Your task to perform on an android device: delete browsing data in the chrome app Image 0: 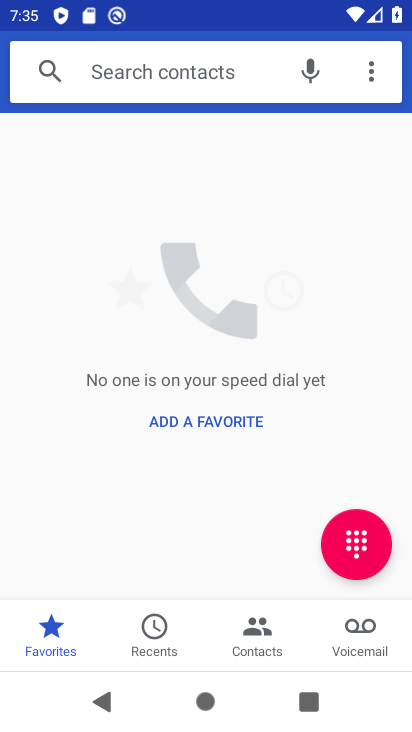
Step 0: press home button
Your task to perform on an android device: delete browsing data in the chrome app Image 1: 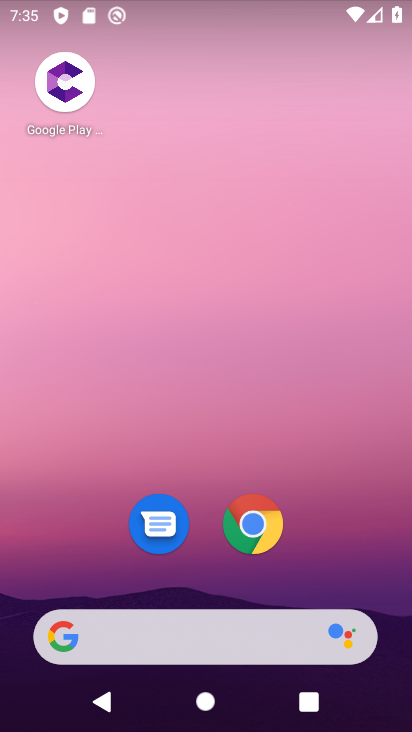
Step 1: click (251, 529)
Your task to perform on an android device: delete browsing data in the chrome app Image 2: 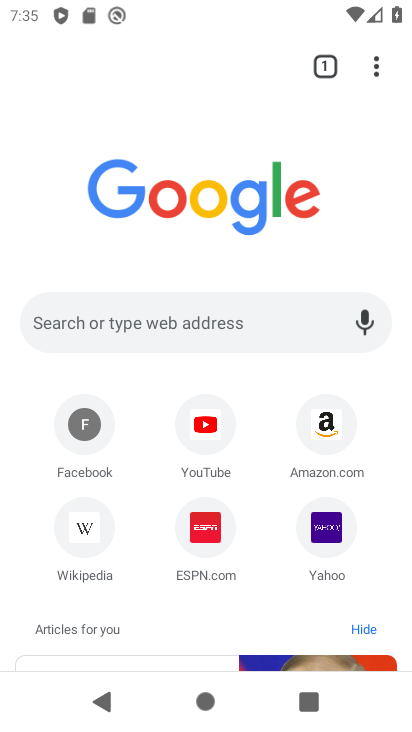
Step 2: click (376, 72)
Your task to perform on an android device: delete browsing data in the chrome app Image 3: 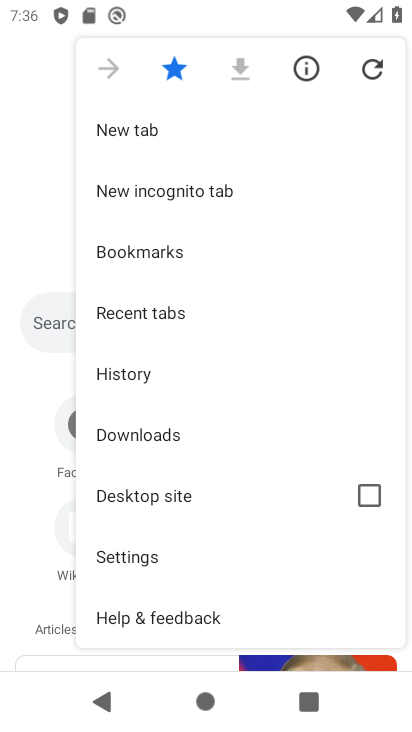
Step 3: click (125, 366)
Your task to perform on an android device: delete browsing data in the chrome app Image 4: 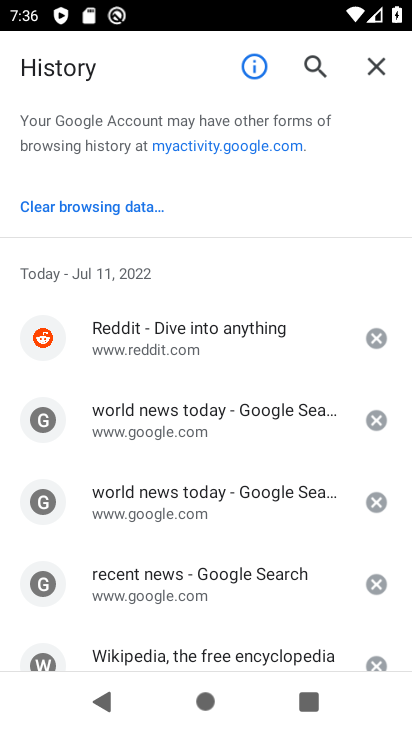
Step 4: click (111, 203)
Your task to perform on an android device: delete browsing data in the chrome app Image 5: 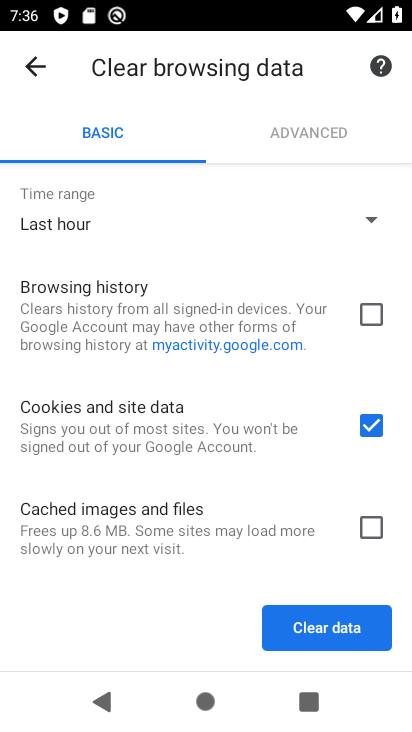
Step 5: click (363, 316)
Your task to perform on an android device: delete browsing data in the chrome app Image 6: 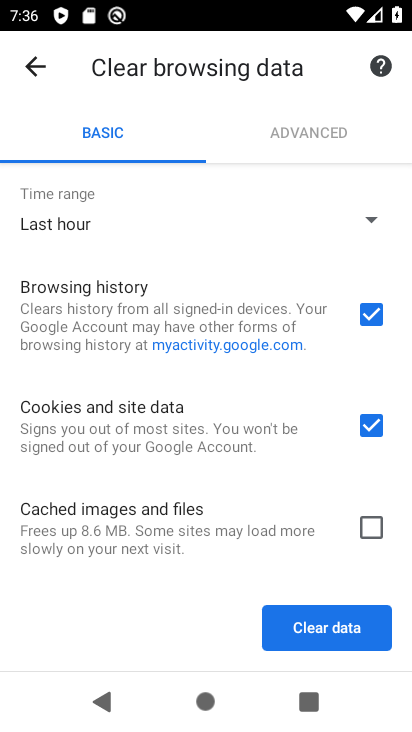
Step 6: click (376, 529)
Your task to perform on an android device: delete browsing data in the chrome app Image 7: 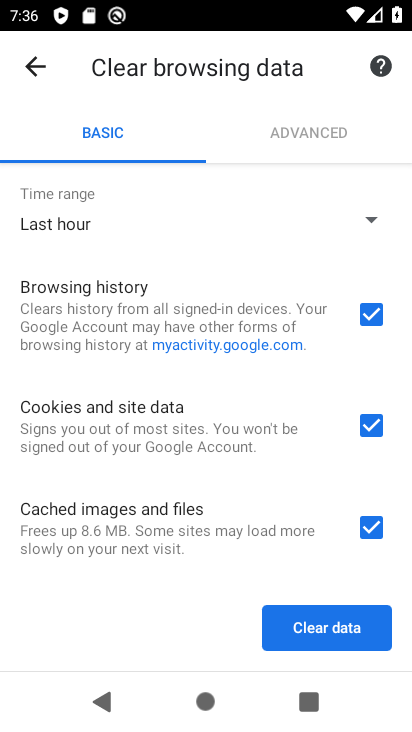
Step 7: click (357, 622)
Your task to perform on an android device: delete browsing data in the chrome app Image 8: 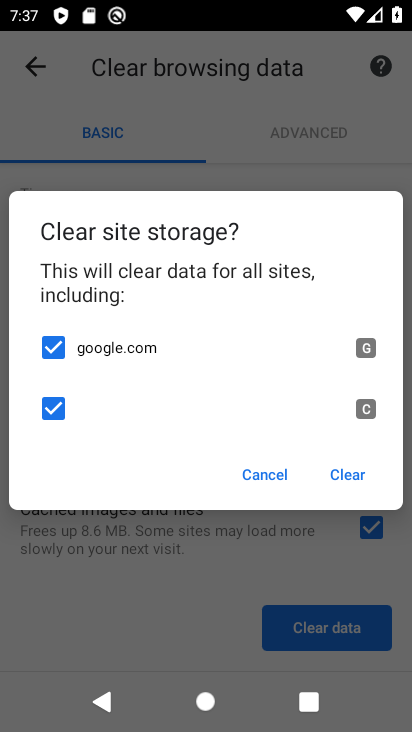
Step 8: click (356, 470)
Your task to perform on an android device: delete browsing data in the chrome app Image 9: 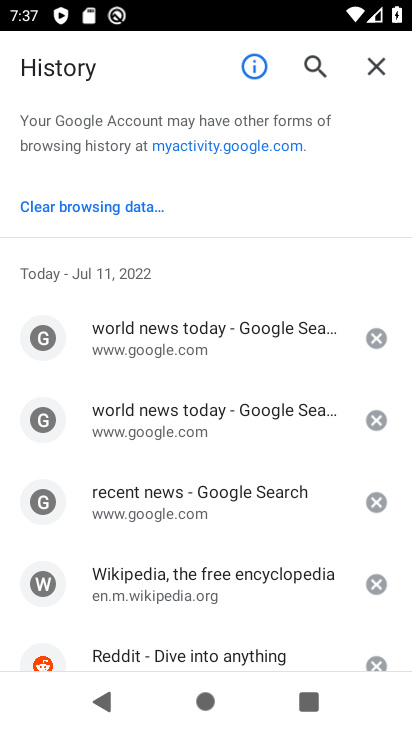
Step 9: task complete